Your task to perform on an android device: toggle wifi Image 0: 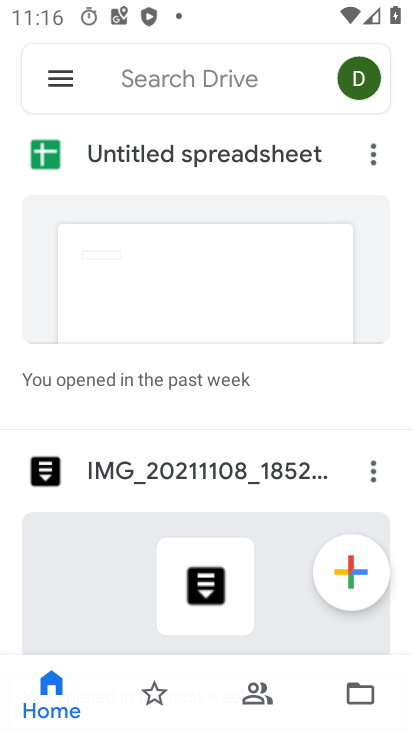
Step 0: press home button
Your task to perform on an android device: toggle wifi Image 1: 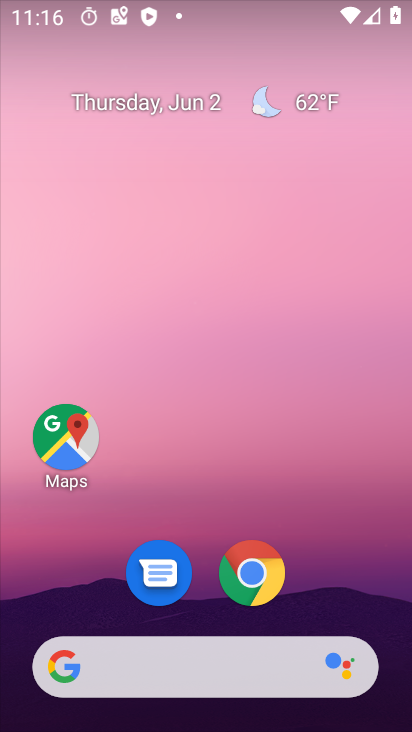
Step 1: drag from (207, 574) to (315, 1)
Your task to perform on an android device: toggle wifi Image 2: 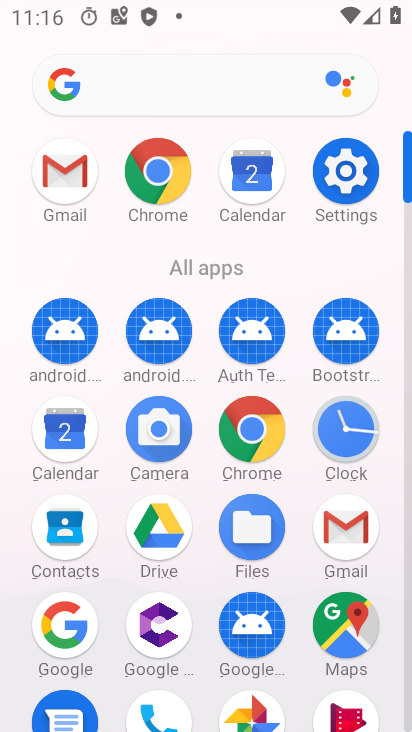
Step 2: click (349, 177)
Your task to perform on an android device: toggle wifi Image 3: 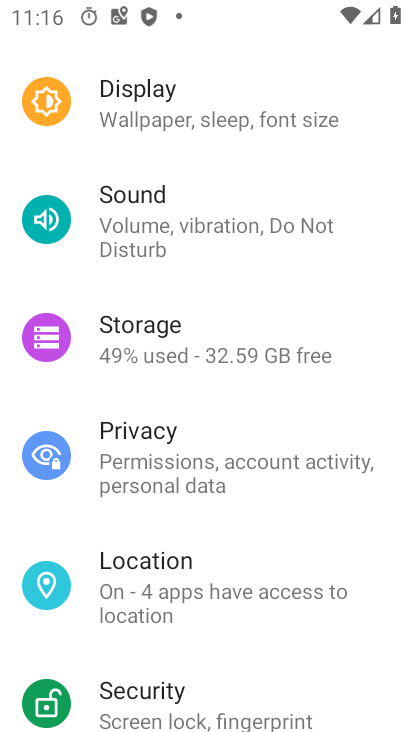
Step 3: drag from (246, 125) to (229, 541)
Your task to perform on an android device: toggle wifi Image 4: 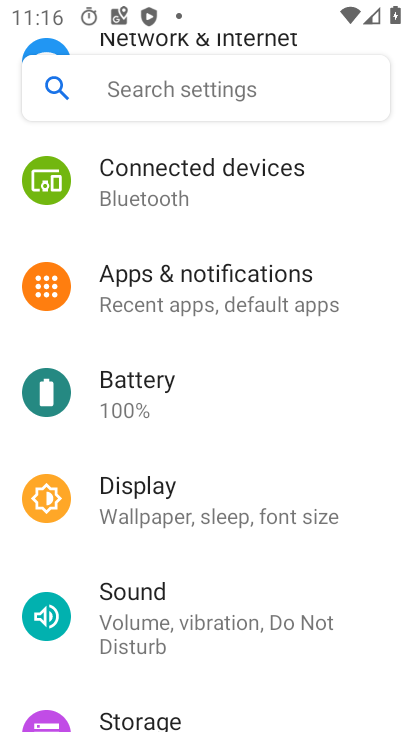
Step 4: drag from (263, 254) to (247, 651)
Your task to perform on an android device: toggle wifi Image 5: 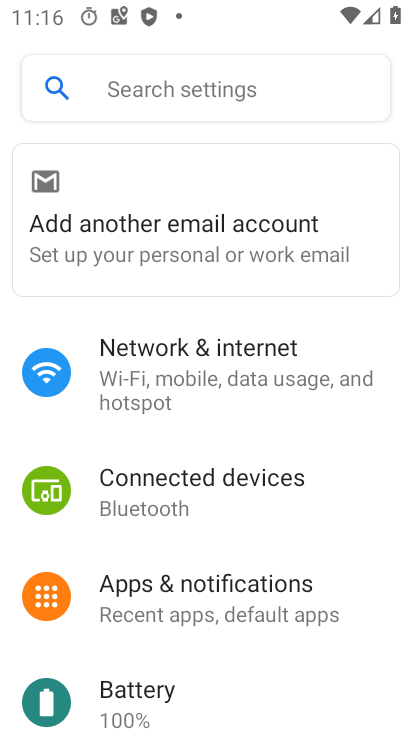
Step 5: click (171, 412)
Your task to perform on an android device: toggle wifi Image 6: 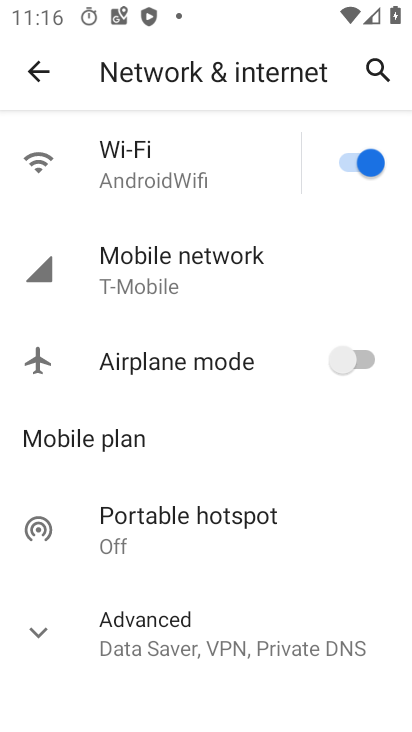
Step 6: click (235, 169)
Your task to perform on an android device: toggle wifi Image 7: 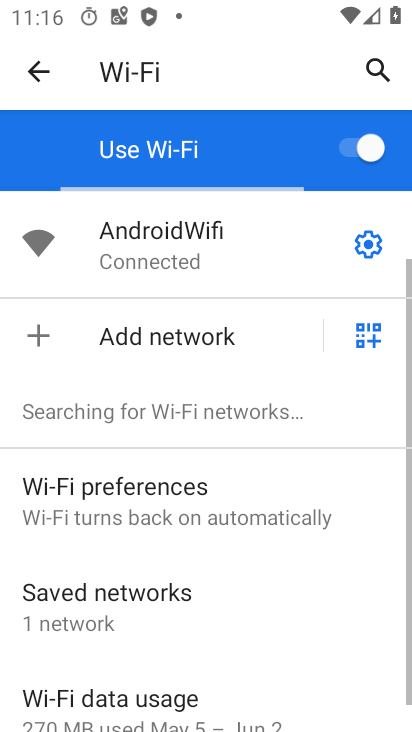
Step 7: task complete